Your task to perform on an android device: add a label to a message in the gmail app Image 0: 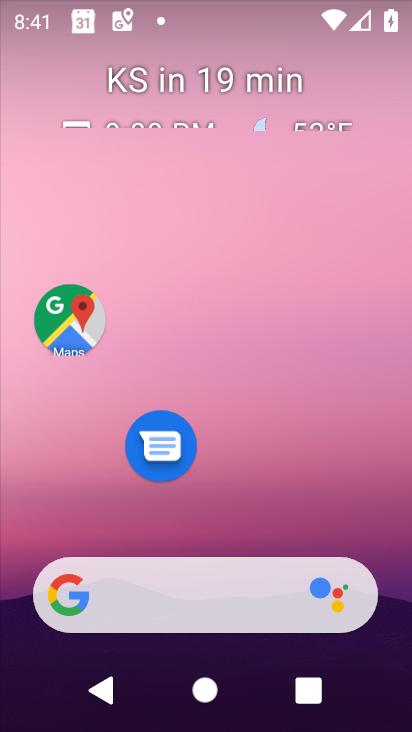
Step 0: drag from (191, 566) to (179, 36)
Your task to perform on an android device: add a label to a message in the gmail app Image 1: 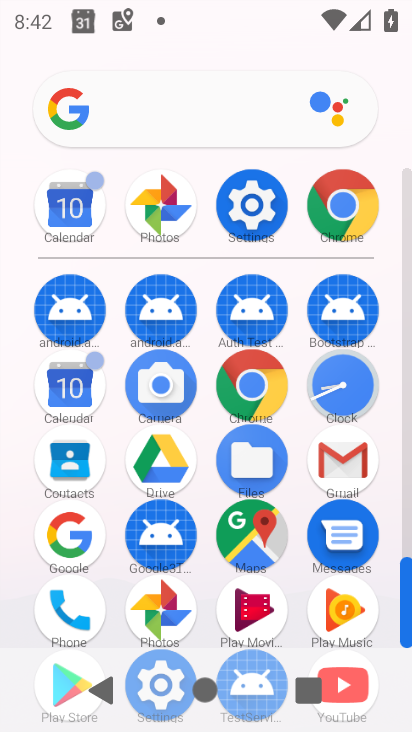
Step 1: click (335, 455)
Your task to perform on an android device: add a label to a message in the gmail app Image 2: 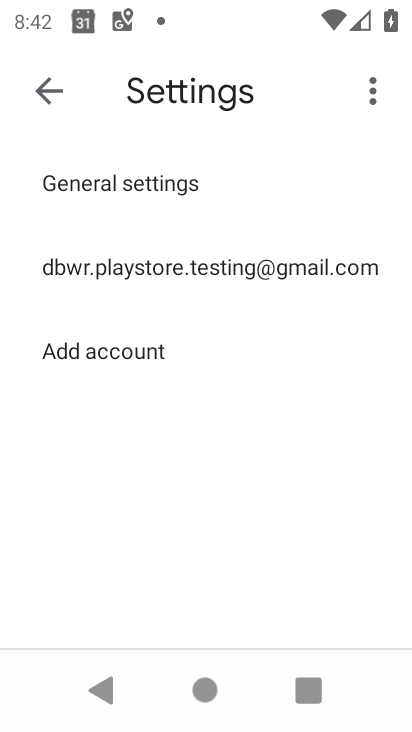
Step 2: click (48, 100)
Your task to perform on an android device: add a label to a message in the gmail app Image 3: 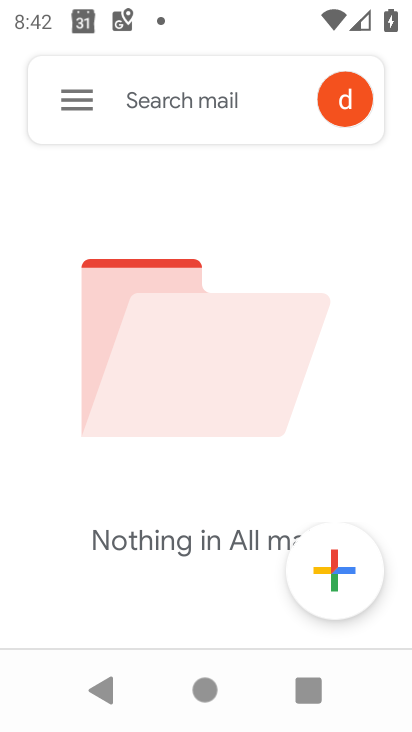
Step 3: task complete